Your task to perform on an android device: See recent photos Image 0: 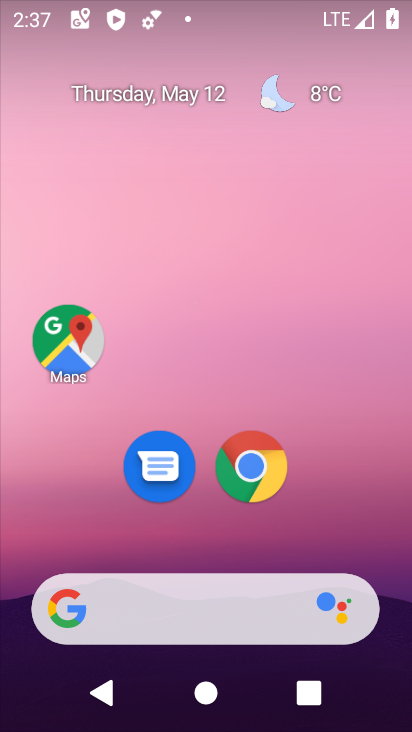
Step 0: drag from (277, 557) to (278, 129)
Your task to perform on an android device: See recent photos Image 1: 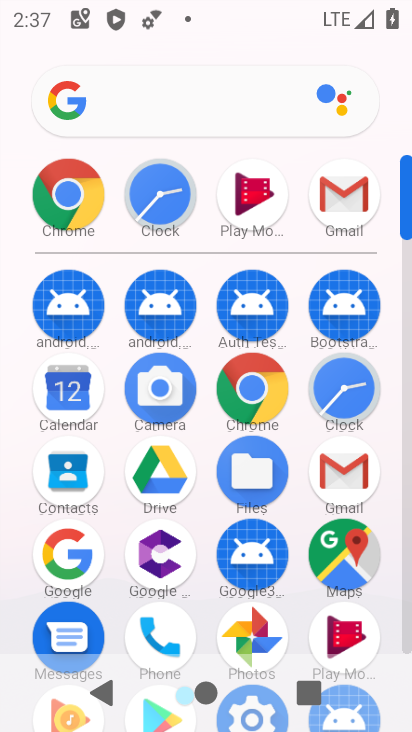
Step 1: click (236, 637)
Your task to perform on an android device: See recent photos Image 2: 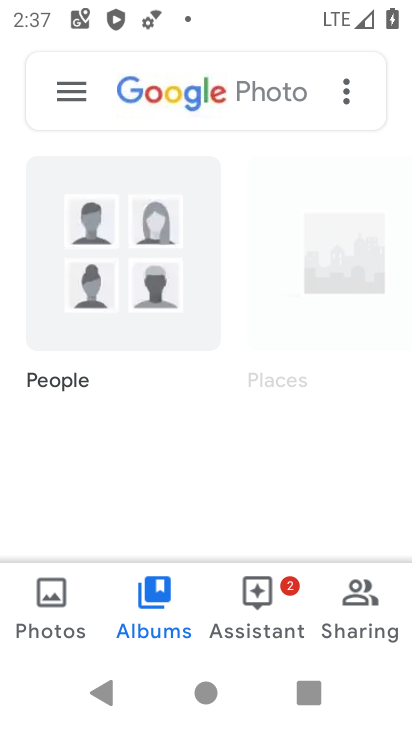
Step 2: click (50, 614)
Your task to perform on an android device: See recent photos Image 3: 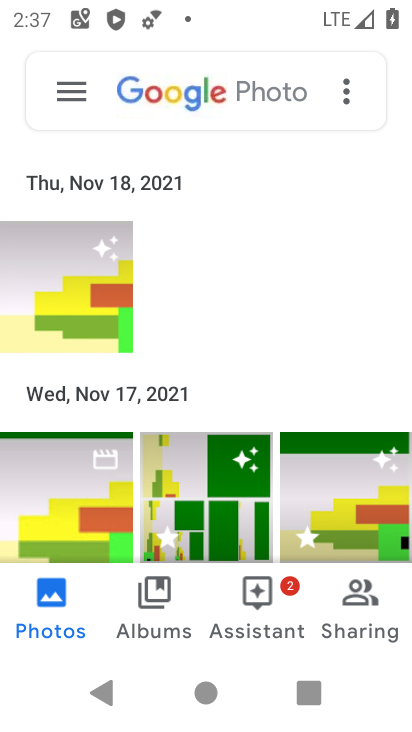
Step 3: task complete